Your task to perform on an android device: turn off improve location accuracy Image 0: 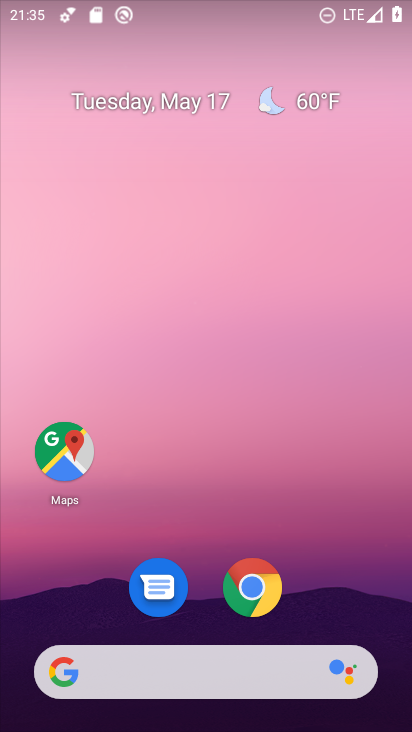
Step 0: drag from (180, 510) to (86, 112)
Your task to perform on an android device: turn off improve location accuracy Image 1: 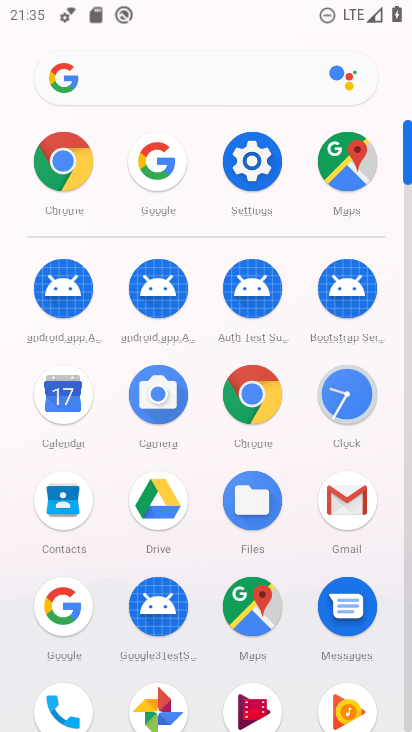
Step 1: click (229, 179)
Your task to perform on an android device: turn off improve location accuracy Image 2: 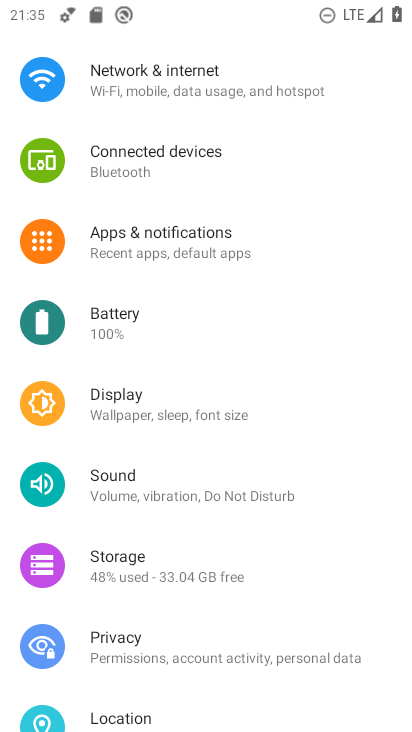
Step 2: drag from (162, 432) to (145, 240)
Your task to perform on an android device: turn off improve location accuracy Image 3: 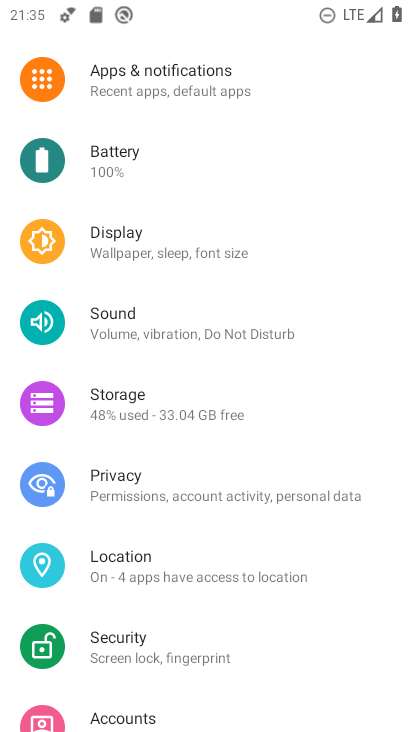
Step 3: drag from (140, 480) to (119, 330)
Your task to perform on an android device: turn off improve location accuracy Image 4: 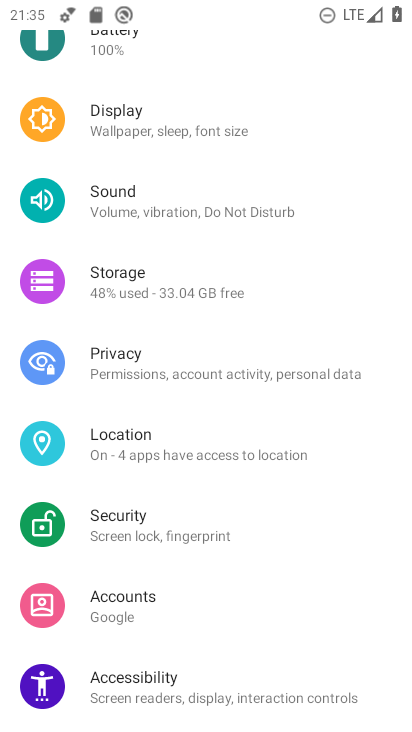
Step 4: click (166, 447)
Your task to perform on an android device: turn off improve location accuracy Image 5: 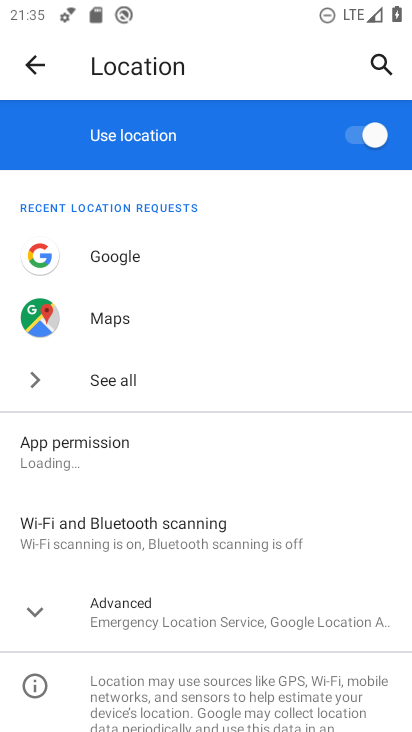
Step 5: click (134, 597)
Your task to perform on an android device: turn off improve location accuracy Image 6: 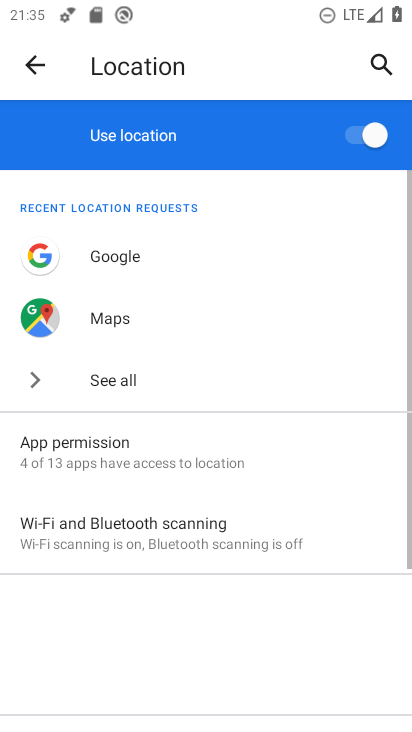
Step 6: drag from (134, 597) to (90, 271)
Your task to perform on an android device: turn off improve location accuracy Image 7: 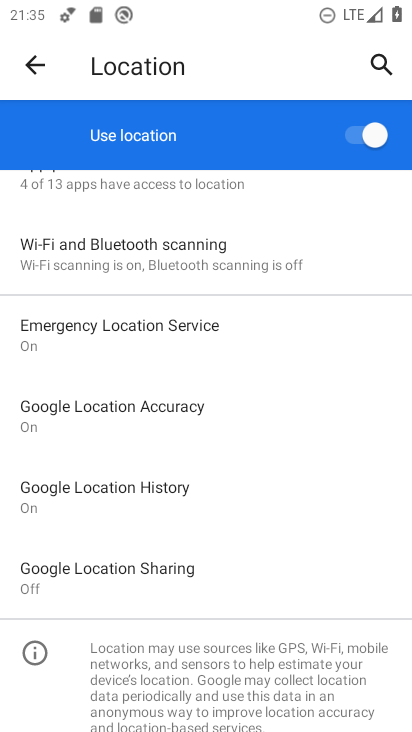
Step 7: click (131, 419)
Your task to perform on an android device: turn off improve location accuracy Image 8: 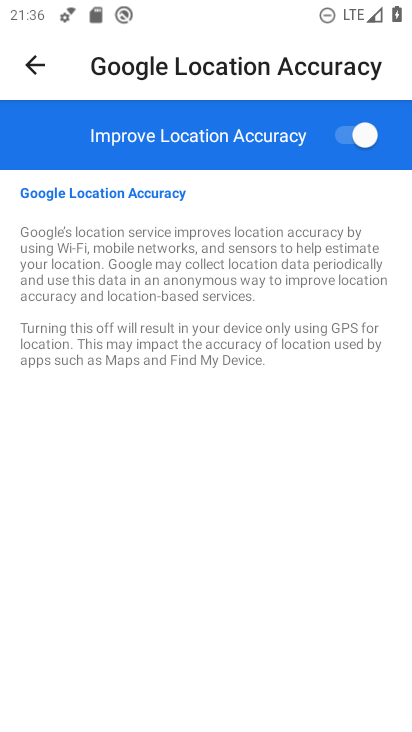
Step 8: click (361, 135)
Your task to perform on an android device: turn off improve location accuracy Image 9: 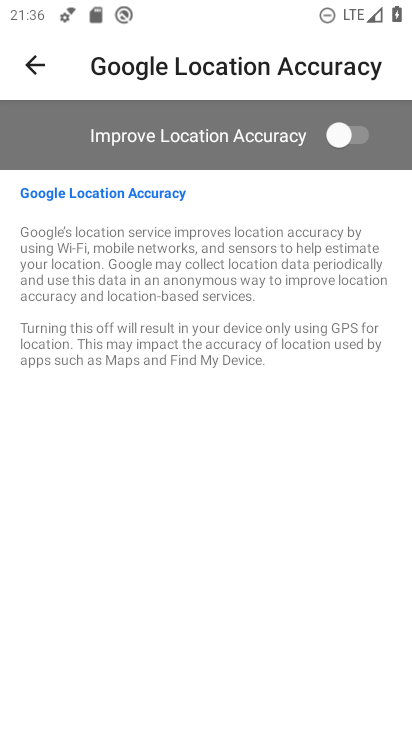
Step 9: task complete